Your task to perform on an android device: check data usage Image 0: 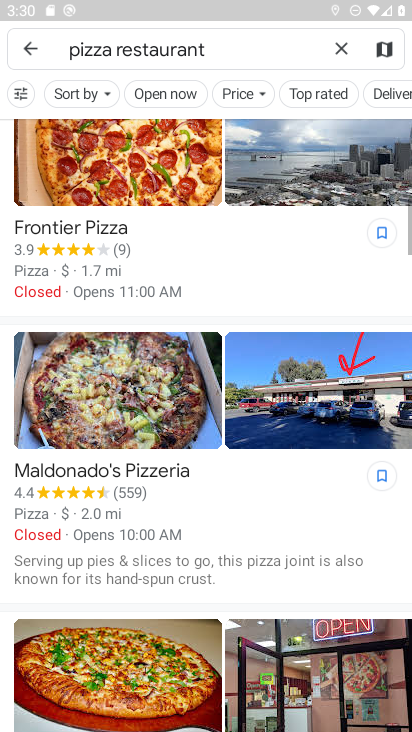
Step 0: press home button
Your task to perform on an android device: check data usage Image 1: 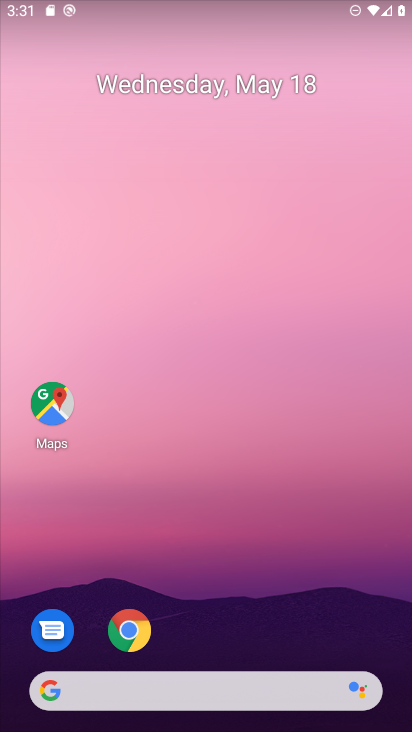
Step 1: drag from (212, 643) to (380, 137)
Your task to perform on an android device: check data usage Image 2: 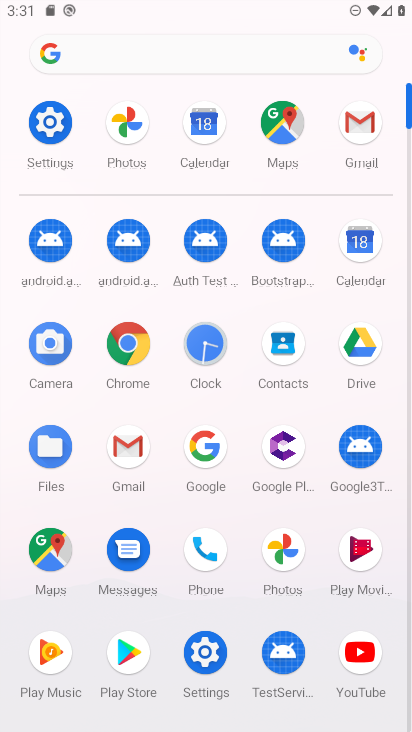
Step 2: click (48, 114)
Your task to perform on an android device: check data usage Image 3: 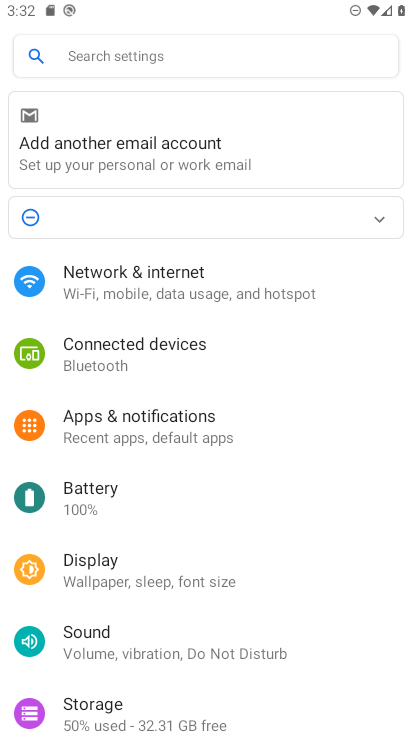
Step 3: click (203, 293)
Your task to perform on an android device: check data usage Image 4: 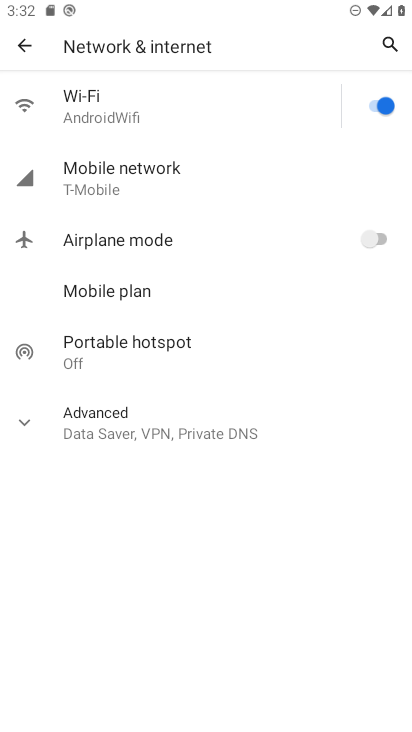
Step 4: click (113, 184)
Your task to perform on an android device: check data usage Image 5: 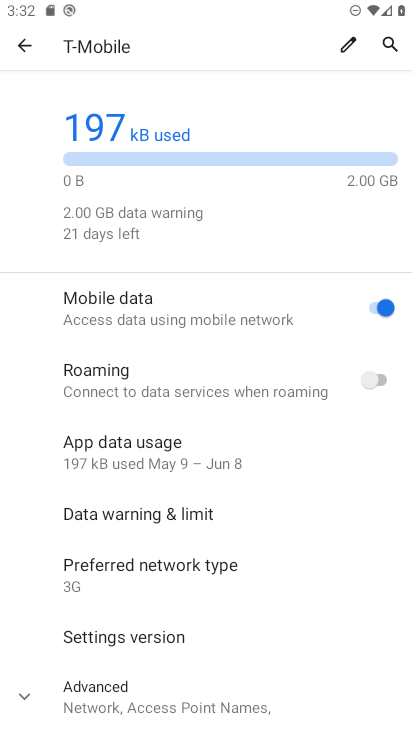
Step 5: click (175, 450)
Your task to perform on an android device: check data usage Image 6: 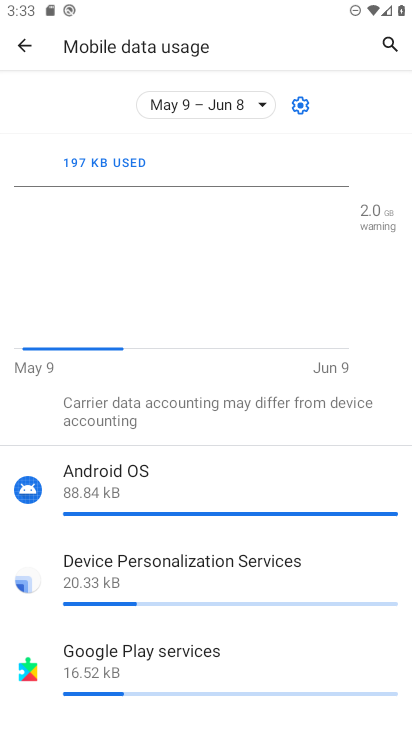
Step 6: task complete